Your task to perform on an android device: Go to Amazon Image 0: 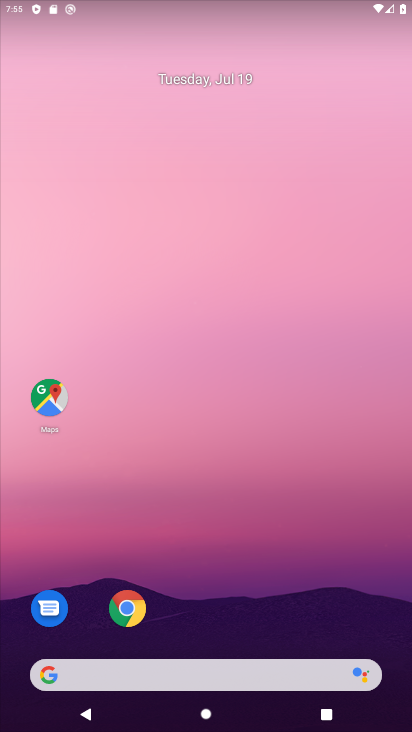
Step 0: click (134, 606)
Your task to perform on an android device: Go to Amazon Image 1: 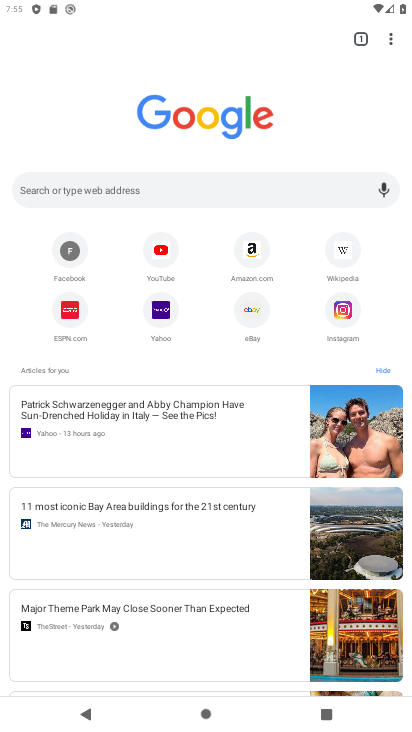
Step 1: click (258, 244)
Your task to perform on an android device: Go to Amazon Image 2: 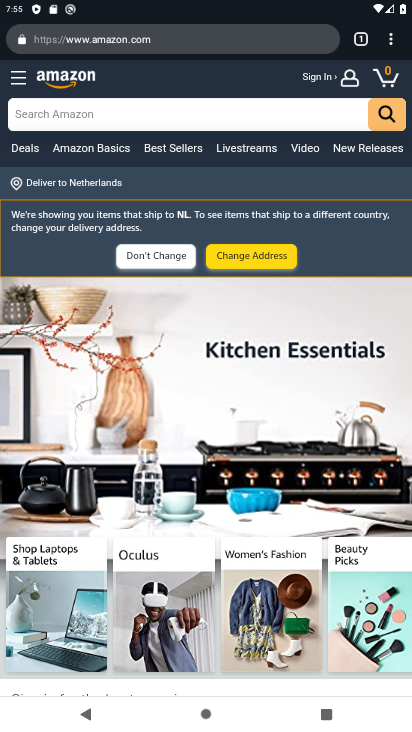
Step 2: task complete